Your task to perform on an android device: Go to Google maps Image 0: 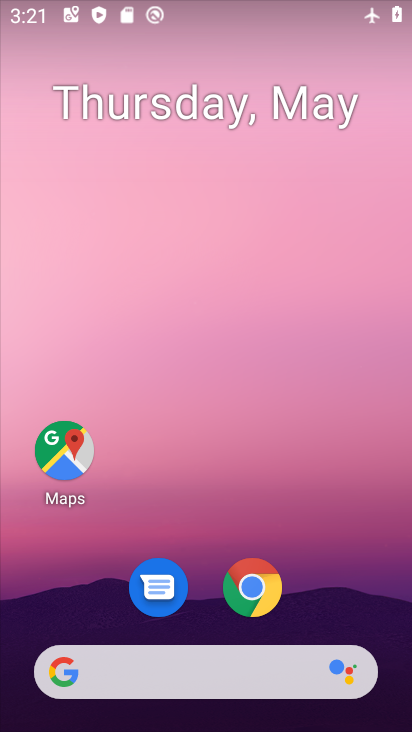
Step 0: drag from (235, 614) to (235, 207)
Your task to perform on an android device: Go to Google maps Image 1: 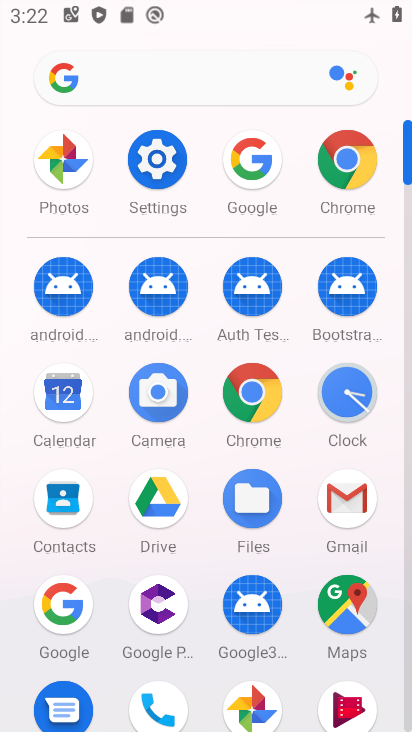
Step 1: drag from (219, 473) to (207, 217)
Your task to perform on an android device: Go to Google maps Image 2: 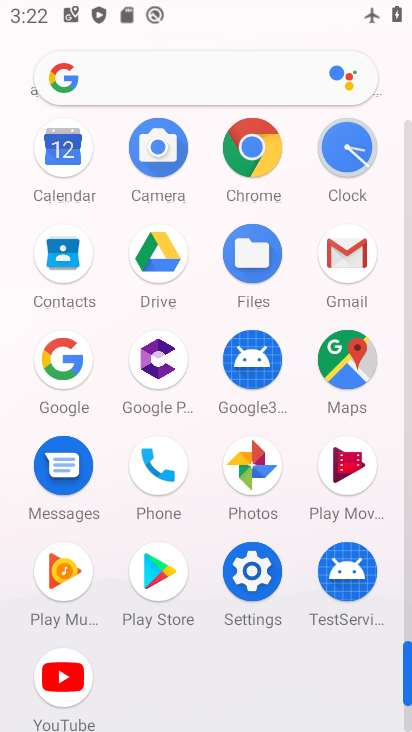
Step 2: click (351, 356)
Your task to perform on an android device: Go to Google maps Image 3: 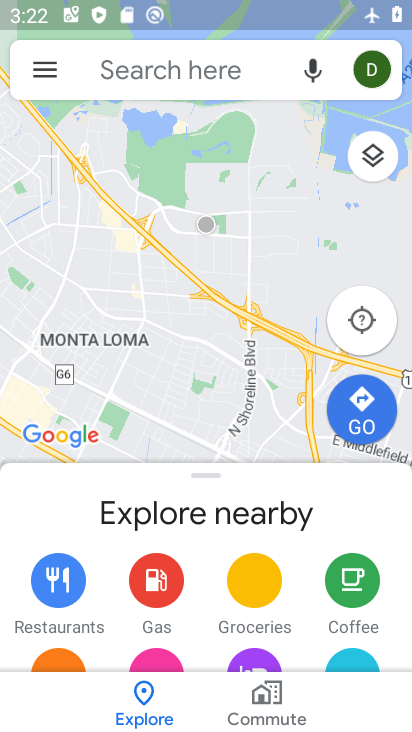
Step 3: task complete